Your task to perform on an android device: Open CNN.com Image 0: 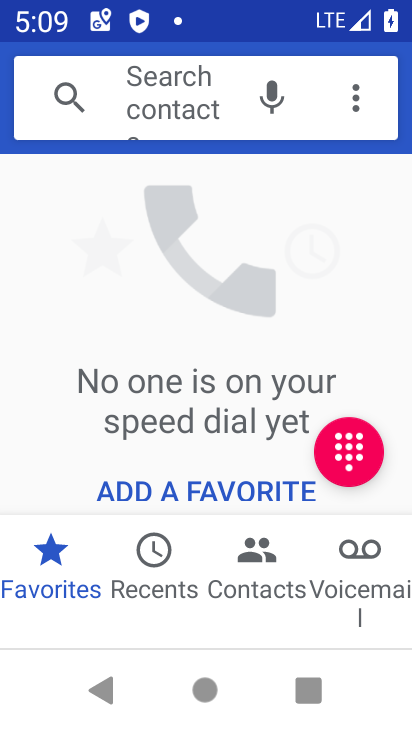
Step 0: press home button
Your task to perform on an android device: Open CNN.com Image 1: 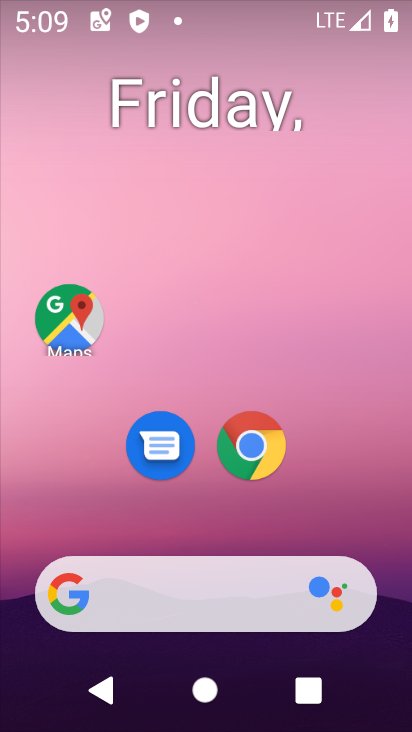
Step 1: click (226, 560)
Your task to perform on an android device: Open CNN.com Image 2: 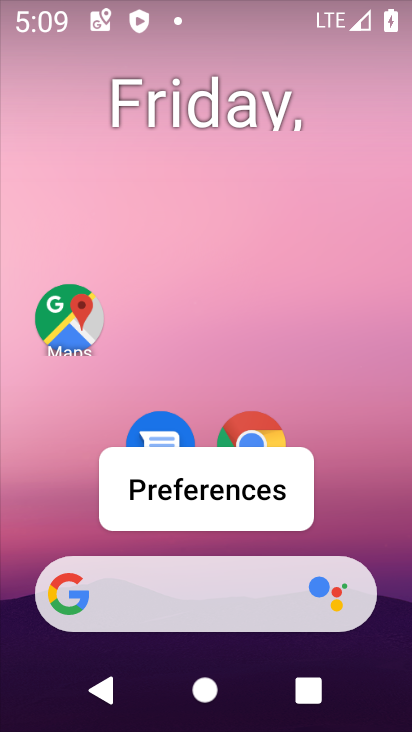
Step 2: click (199, 576)
Your task to perform on an android device: Open CNN.com Image 3: 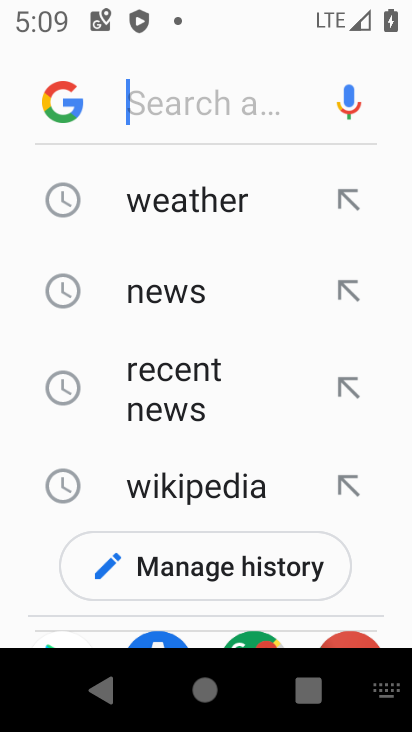
Step 3: type "cnn.com"
Your task to perform on an android device: Open CNN.com Image 4: 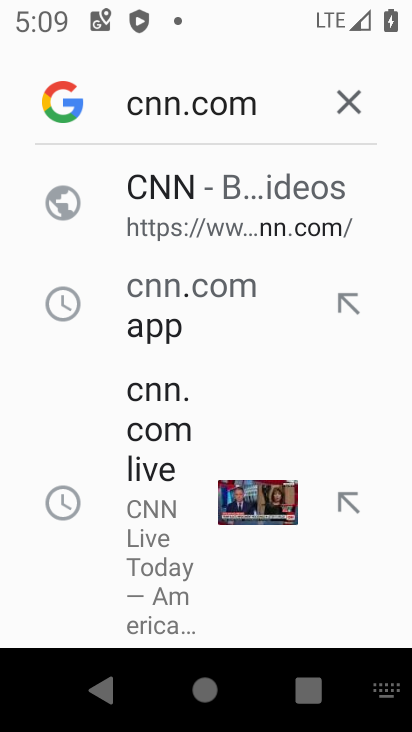
Step 4: click (175, 172)
Your task to perform on an android device: Open CNN.com Image 5: 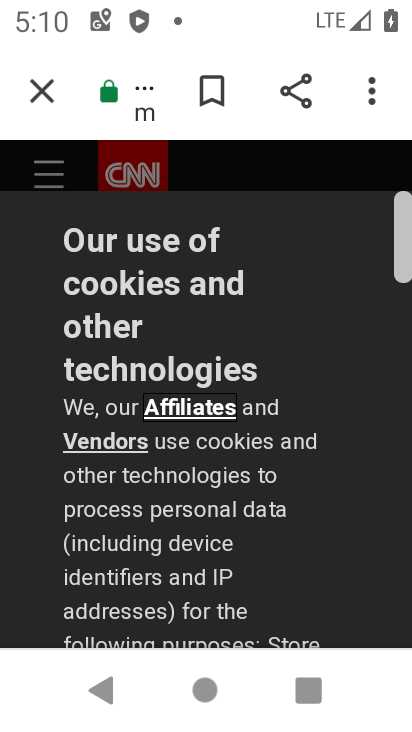
Step 5: task complete